Your task to perform on an android device: turn off javascript in the chrome app Image 0: 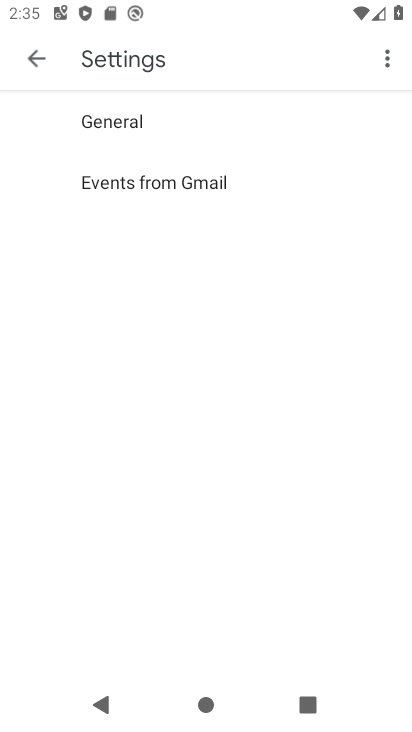
Step 0: press back button
Your task to perform on an android device: turn off javascript in the chrome app Image 1: 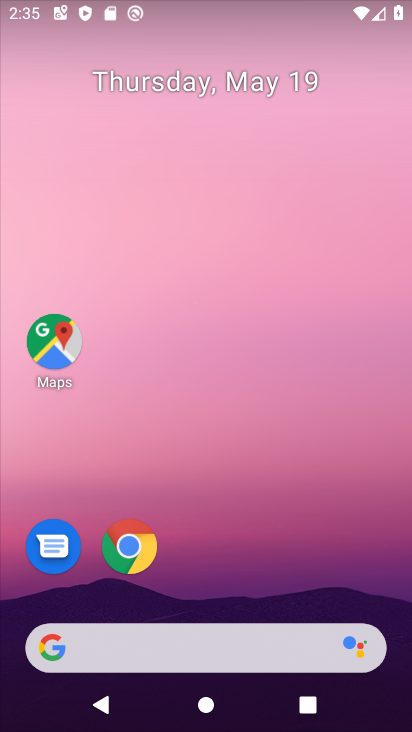
Step 1: drag from (250, 575) to (178, 210)
Your task to perform on an android device: turn off javascript in the chrome app Image 2: 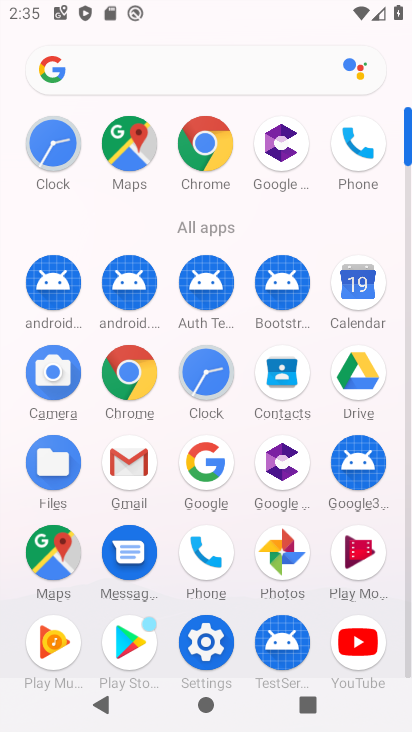
Step 2: click (206, 142)
Your task to perform on an android device: turn off javascript in the chrome app Image 3: 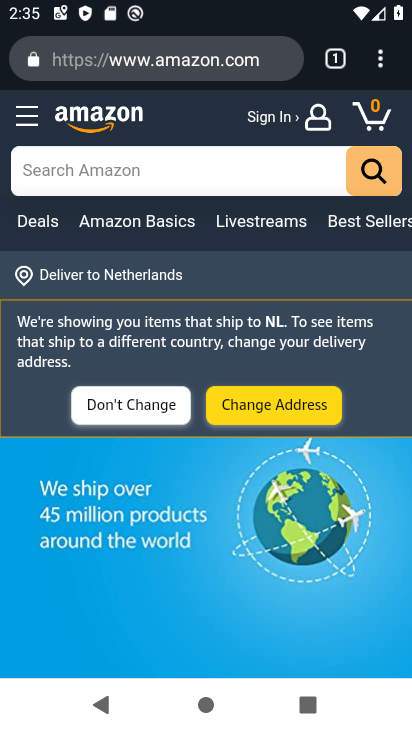
Step 3: click (384, 59)
Your task to perform on an android device: turn off javascript in the chrome app Image 4: 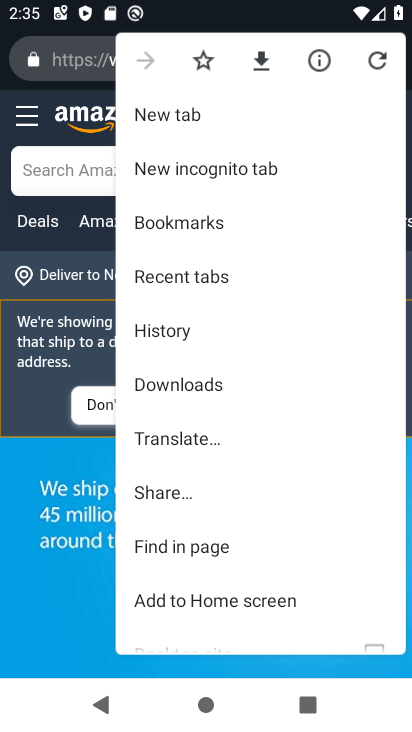
Step 4: drag from (219, 459) to (274, 380)
Your task to perform on an android device: turn off javascript in the chrome app Image 5: 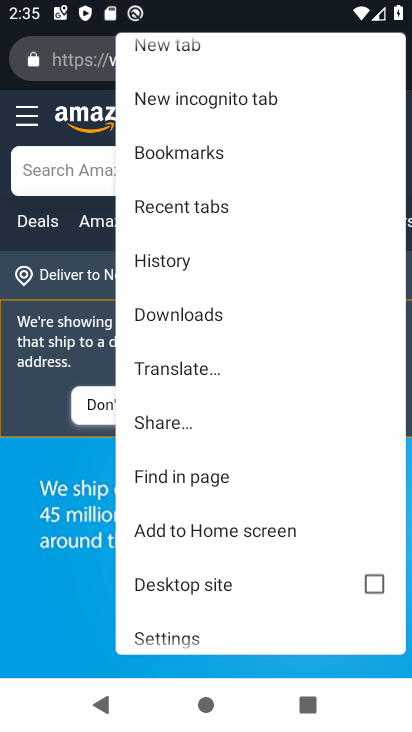
Step 5: drag from (186, 514) to (271, 399)
Your task to perform on an android device: turn off javascript in the chrome app Image 6: 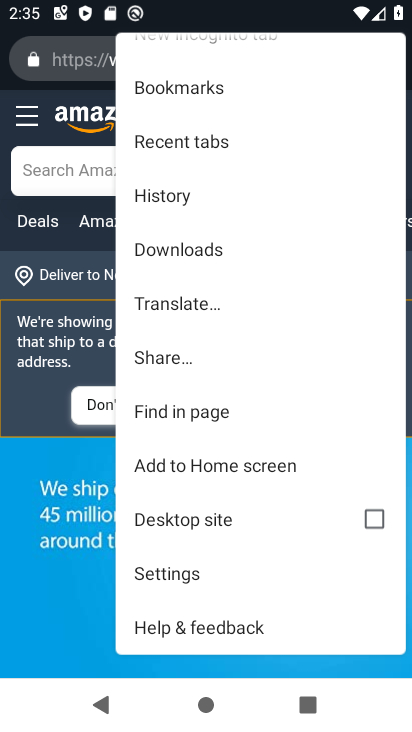
Step 6: click (175, 568)
Your task to perform on an android device: turn off javascript in the chrome app Image 7: 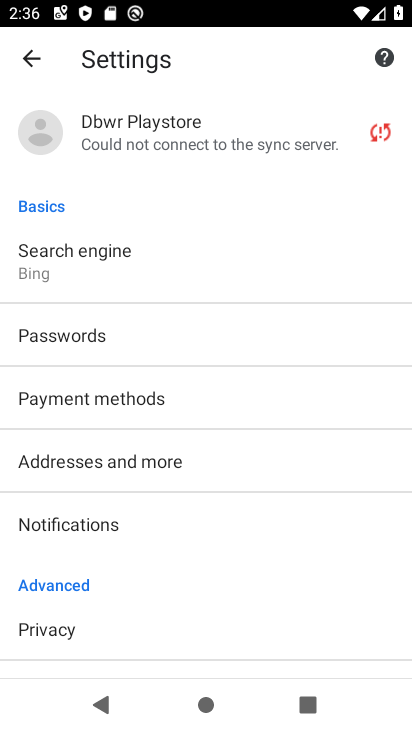
Step 7: drag from (158, 542) to (221, 451)
Your task to perform on an android device: turn off javascript in the chrome app Image 8: 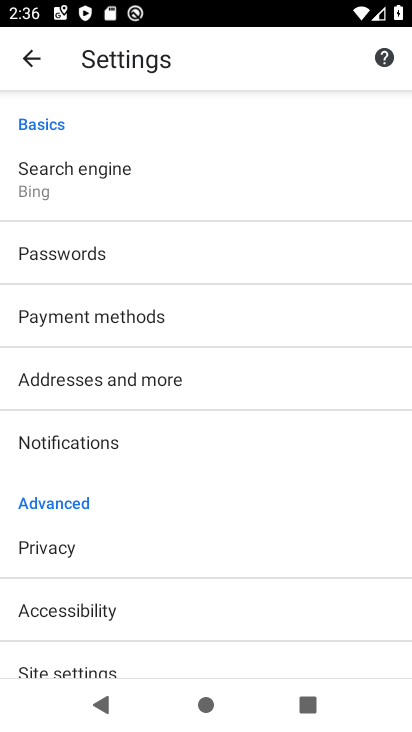
Step 8: drag from (145, 572) to (176, 473)
Your task to perform on an android device: turn off javascript in the chrome app Image 9: 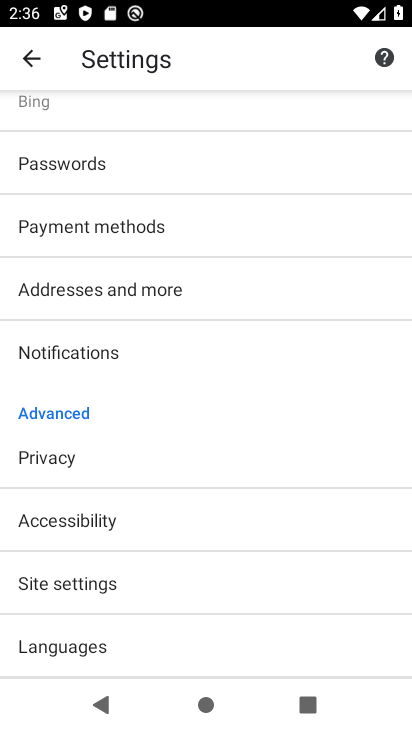
Step 9: click (100, 586)
Your task to perform on an android device: turn off javascript in the chrome app Image 10: 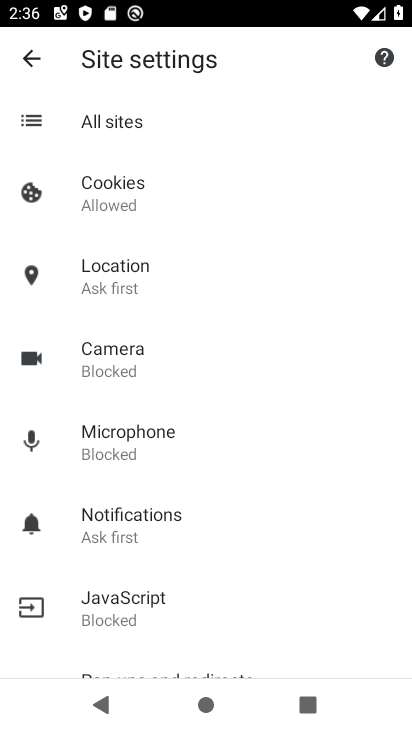
Step 10: drag from (164, 479) to (209, 380)
Your task to perform on an android device: turn off javascript in the chrome app Image 11: 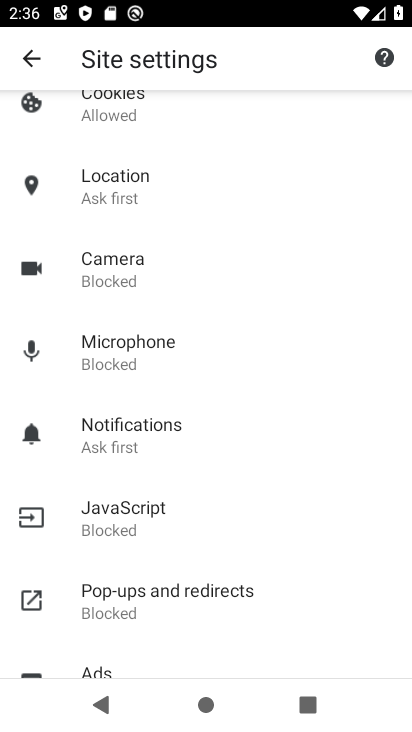
Step 11: click (136, 505)
Your task to perform on an android device: turn off javascript in the chrome app Image 12: 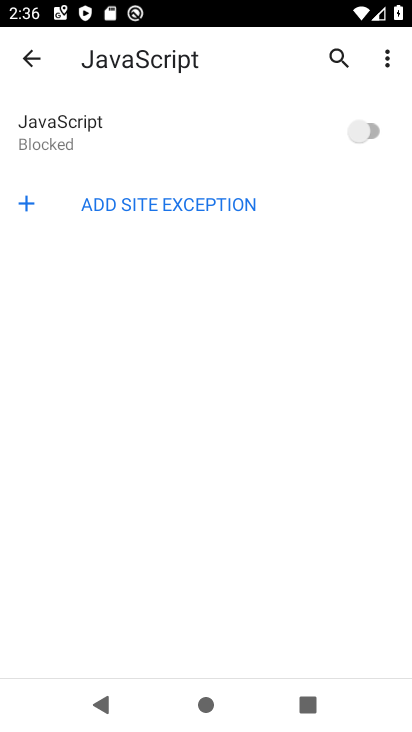
Step 12: task complete